Your task to perform on an android device: set the timer Image 0: 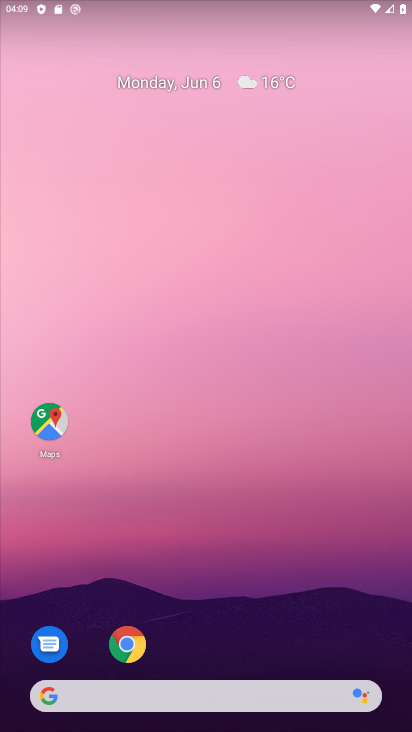
Step 0: drag from (390, 605) to (344, 80)
Your task to perform on an android device: set the timer Image 1: 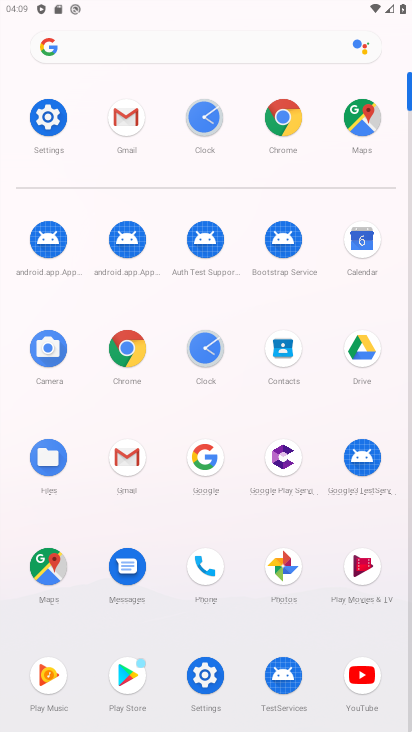
Step 1: click (200, 355)
Your task to perform on an android device: set the timer Image 2: 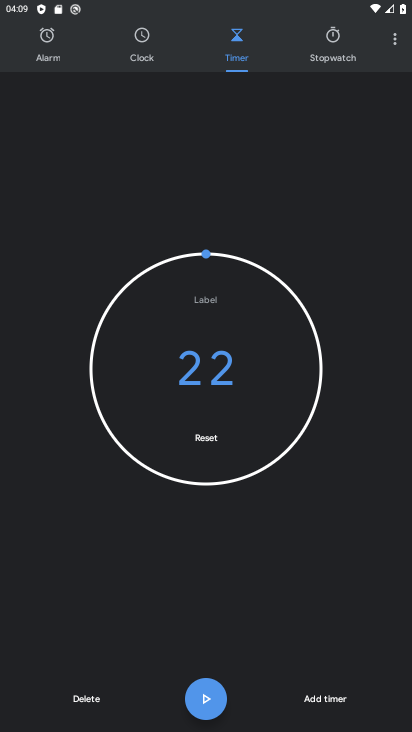
Step 2: click (203, 699)
Your task to perform on an android device: set the timer Image 3: 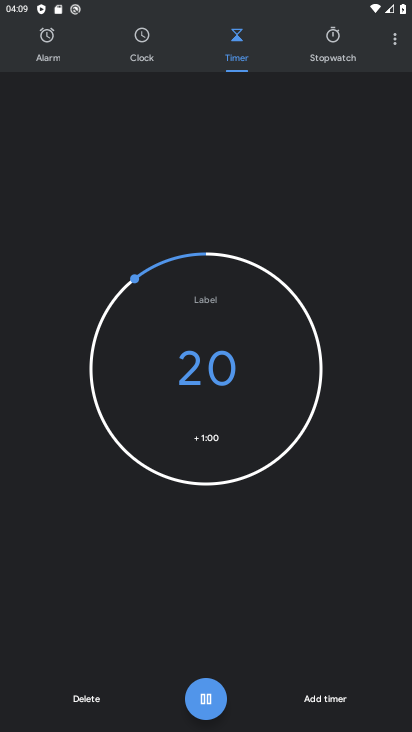
Step 3: task complete